Your task to perform on an android device: When is my next appointment? Image 0: 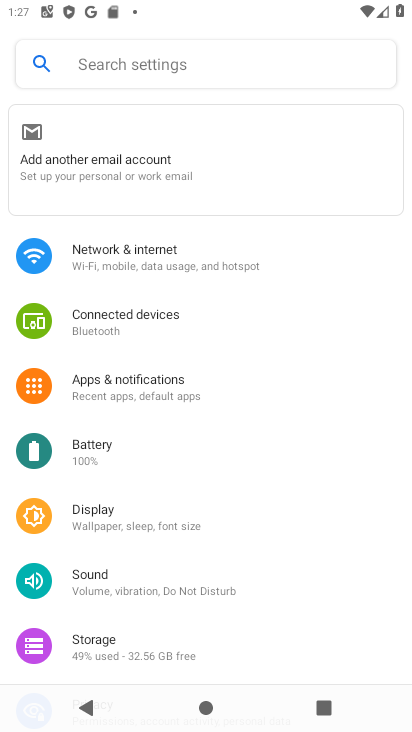
Step 0: press home button
Your task to perform on an android device: When is my next appointment? Image 1: 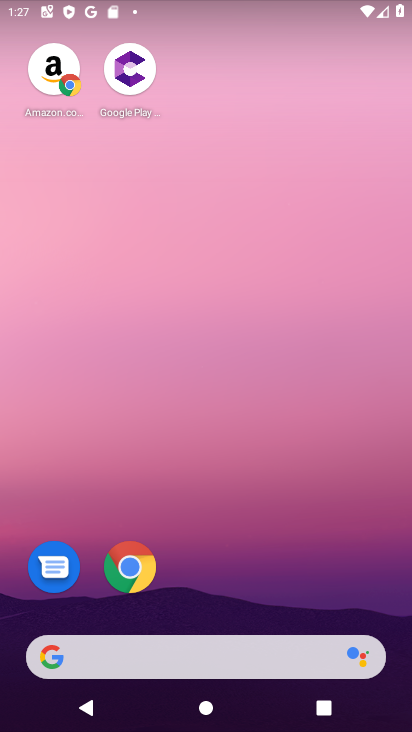
Step 1: drag from (292, 538) to (352, 51)
Your task to perform on an android device: When is my next appointment? Image 2: 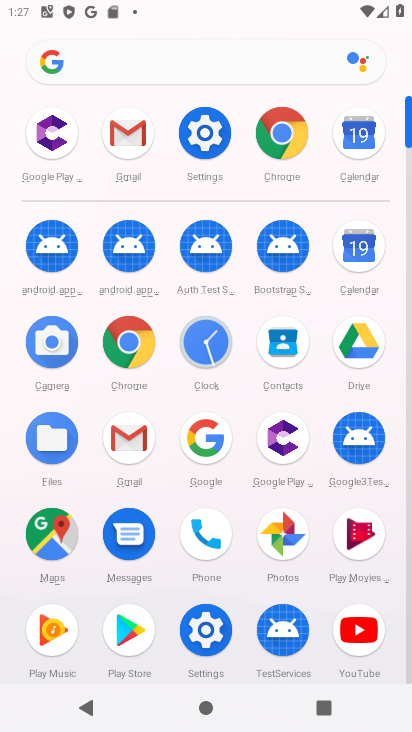
Step 2: click (363, 243)
Your task to perform on an android device: When is my next appointment? Image 3: 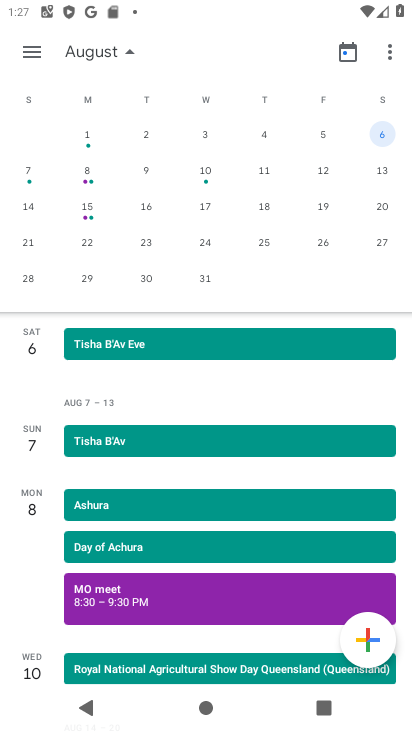
Step 3: task complete